Your task to perform on an android device: toggle sleep mode Image 0: 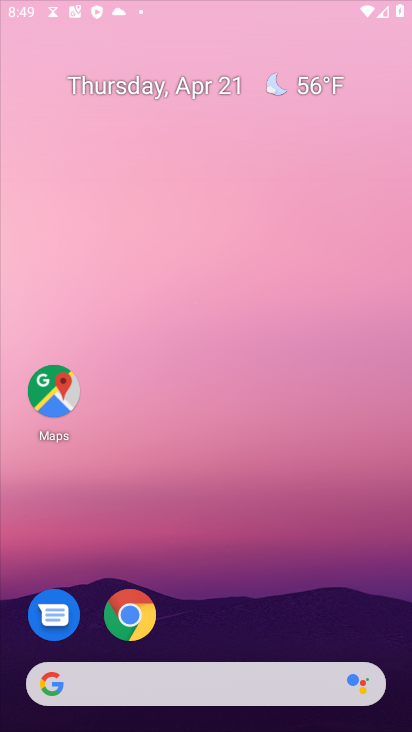
Step 0: drag from (269, 518) to (254, 182)
Your task to perform on an android device: toggle sleep mode Image 1: 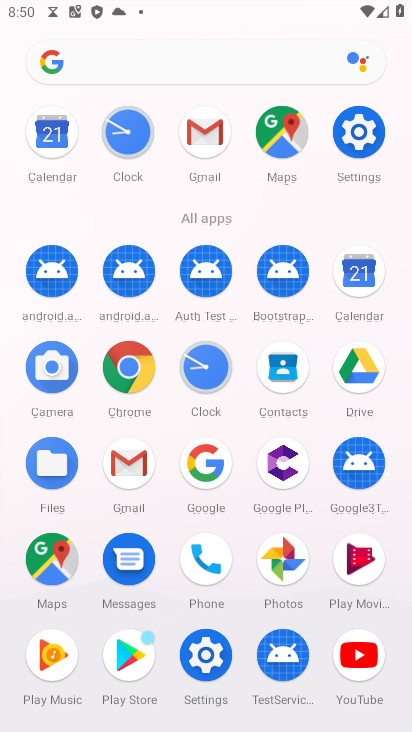
Step 1: task complete